Your task to perform on an android device: Open the web browser Image 0: 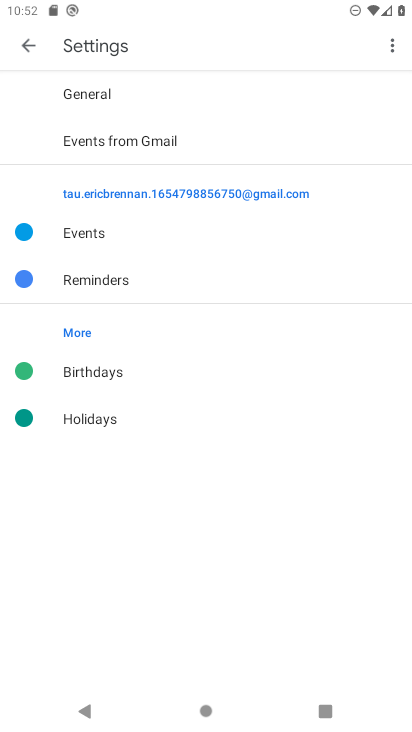
Step 0: press home button
Your task to perform on an android device: Open the web browser Image 1: 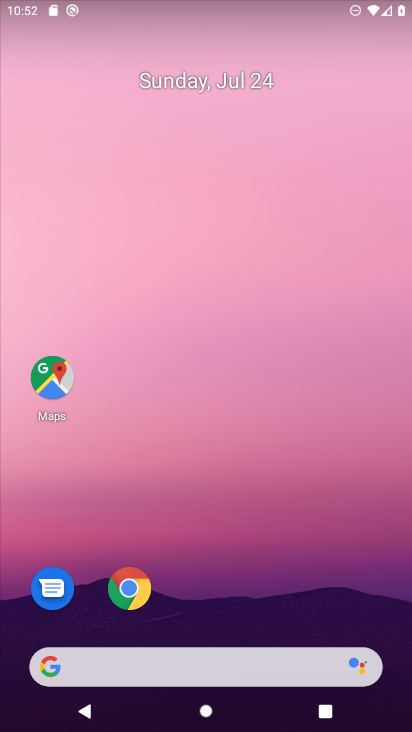
Step 1: click (124, 594)
Your task to perform on an android device: Open the web browser Image 2: 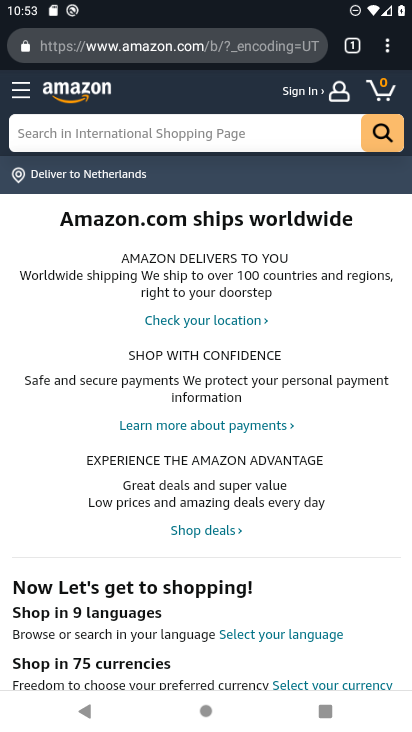
Step 2: task complete